Your task to perform on an android device: check the backup settings in the google photos Image 0: 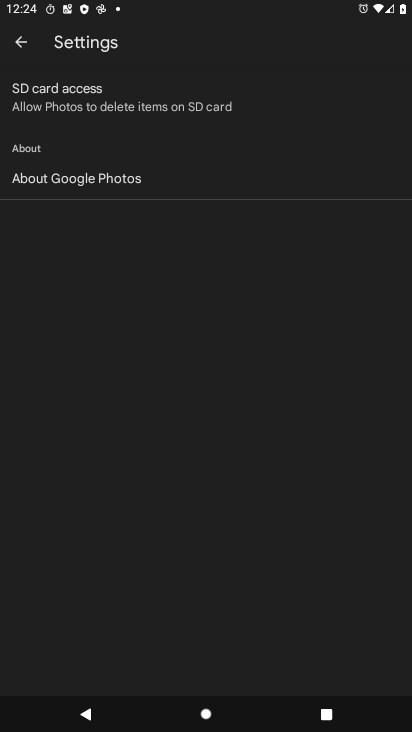
Step 0: click (16, 45)
Your task to perform on an android device: check the backup settings in the google photos Image 1: 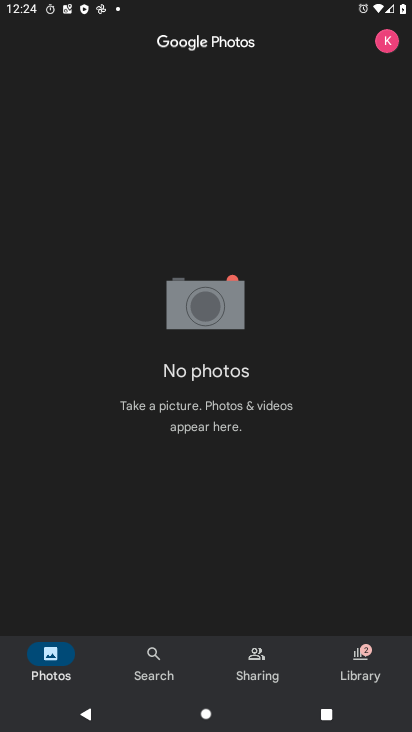
Step 1: click (382, 45)
Your task to perform on an android device: check the backup settings in the google photos Image 2: 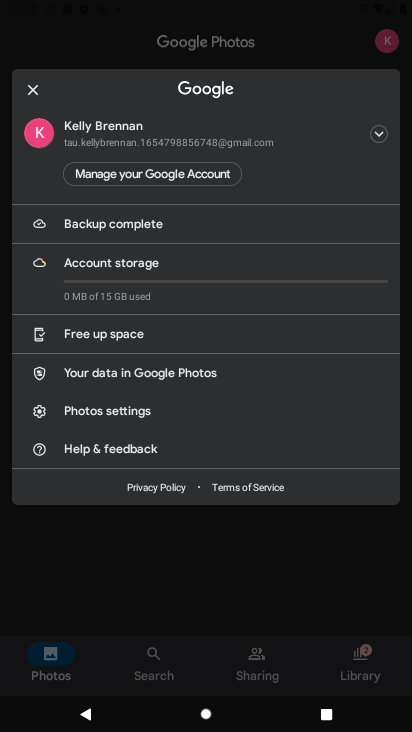
Step 2: click (84, 410)
Your task to perform on an android device: check the backup settings in the google photos Image 3: 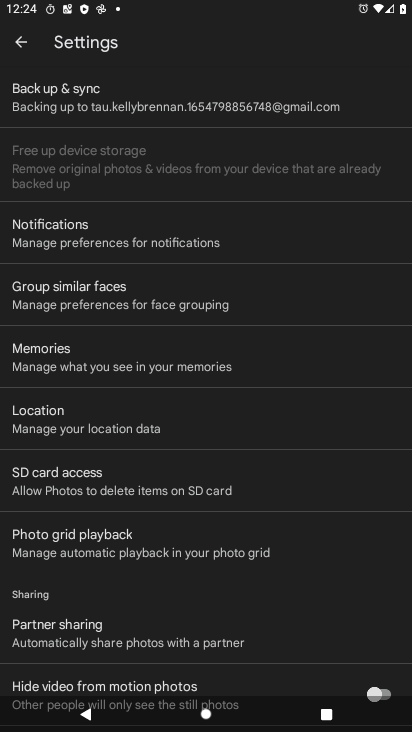
Step 3: click (46, 105)
Your task to perform on an android device: check the backup settings in the google photos Image 4: 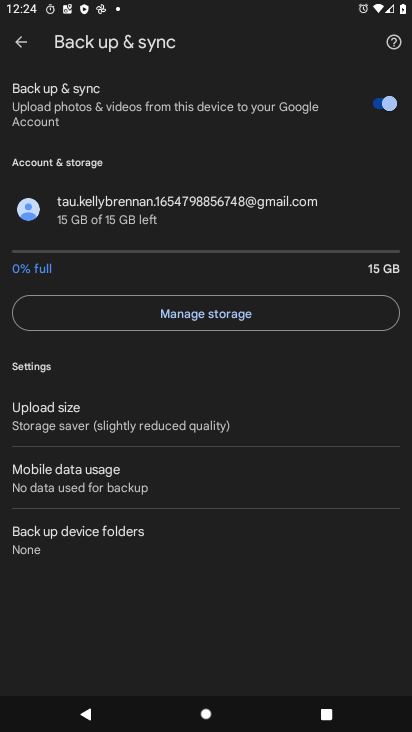
Step 4: task complete